Your task to perform on an android device: Is it going to rain this weekend? Image 0: 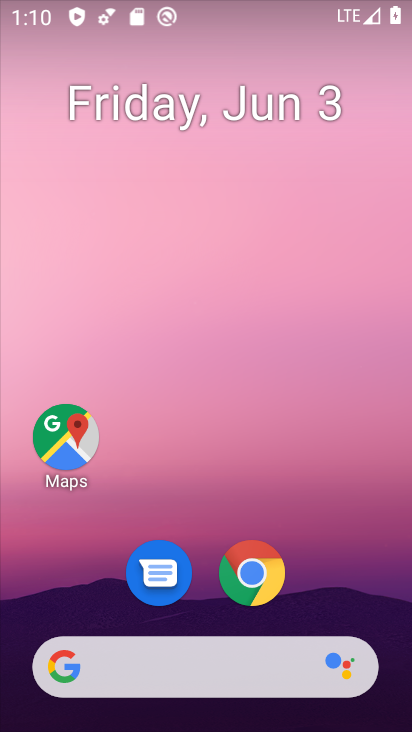
Step 0: click (232, 676)
Your task to perform on an android device: Is it going to rain this weekend? Image 1: 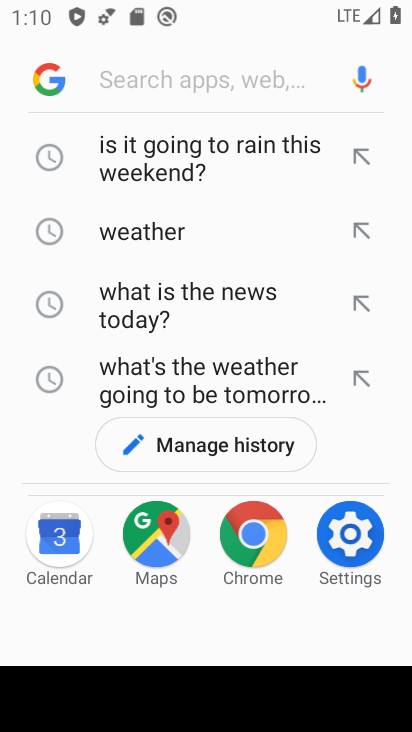
Step 1: click (178, 243)
Your task to perform on an android device: Is it going to rain this weekend? Image 2: 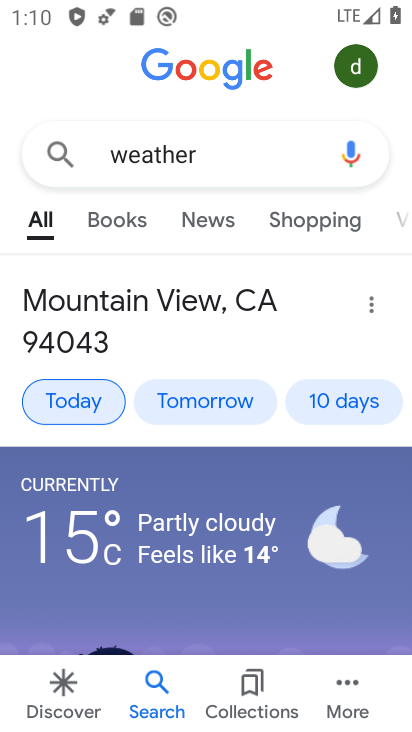
Step 2: click (341, 404)
Your task to perform on an android device: Is it going to rain this weekend? Image 3: 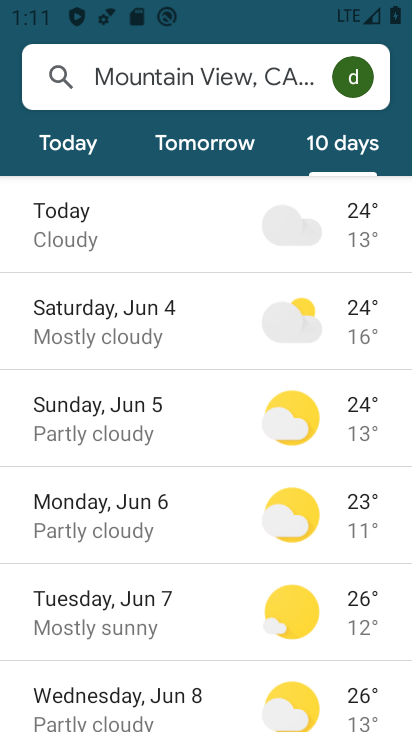
Step 3: drag from (218, 508) to (238, 385)
Your task to perform on an android device: Is it going to rain this weekend? Image 4: 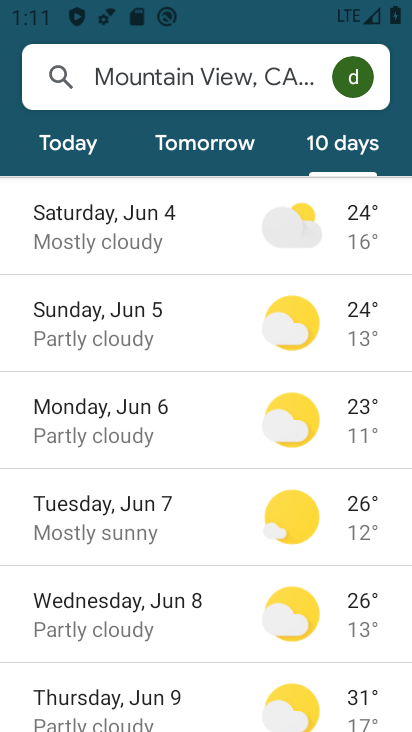
Step 4: click (191, 215)
Your task to perform on an android device: Is it going to rain this weekend? Image 5: 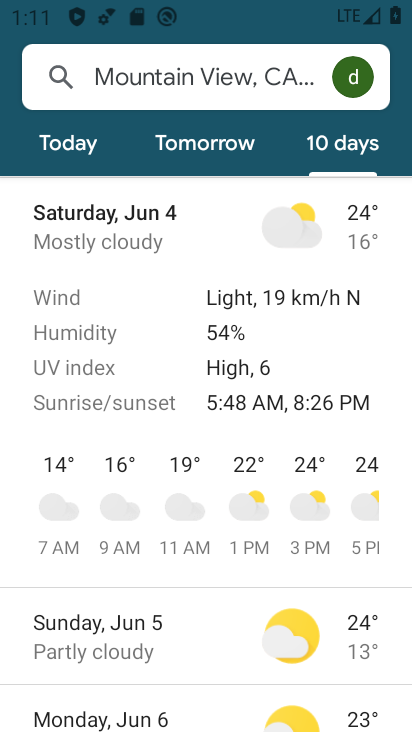
Step 5: task complete